Your task to perform on an android device: Show the shopping cart on walmart.com. Add logitech g pro to the cart on walmart.com, then select checkout. Image 0: 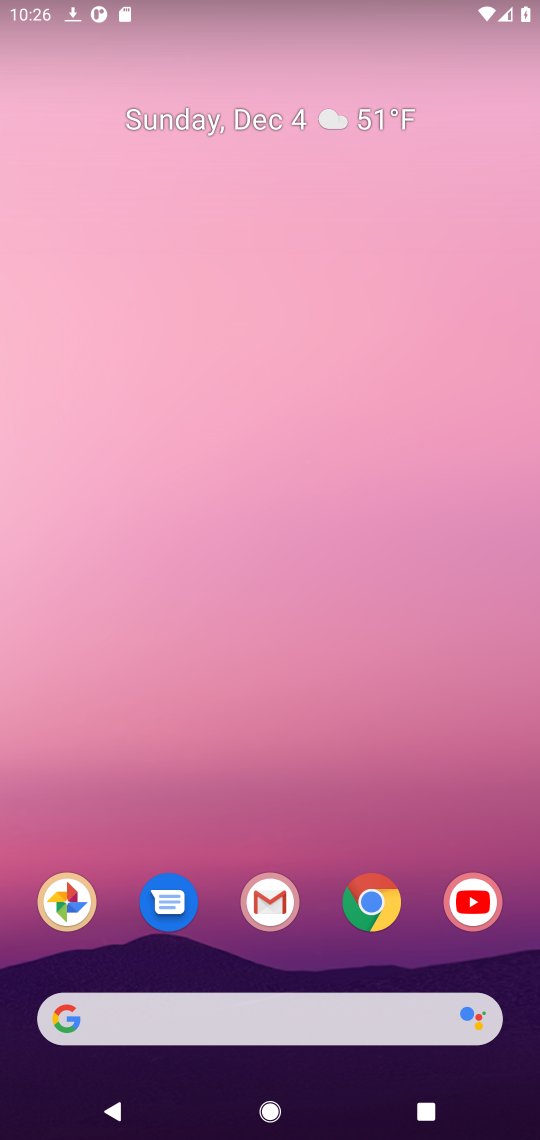
Step 0: click (388, 913)
Your task to perform on an android device: Show the shopping cart on walmart.com. Add logitech g pro to the cart on walmart.com, then select checkout. Image 1: 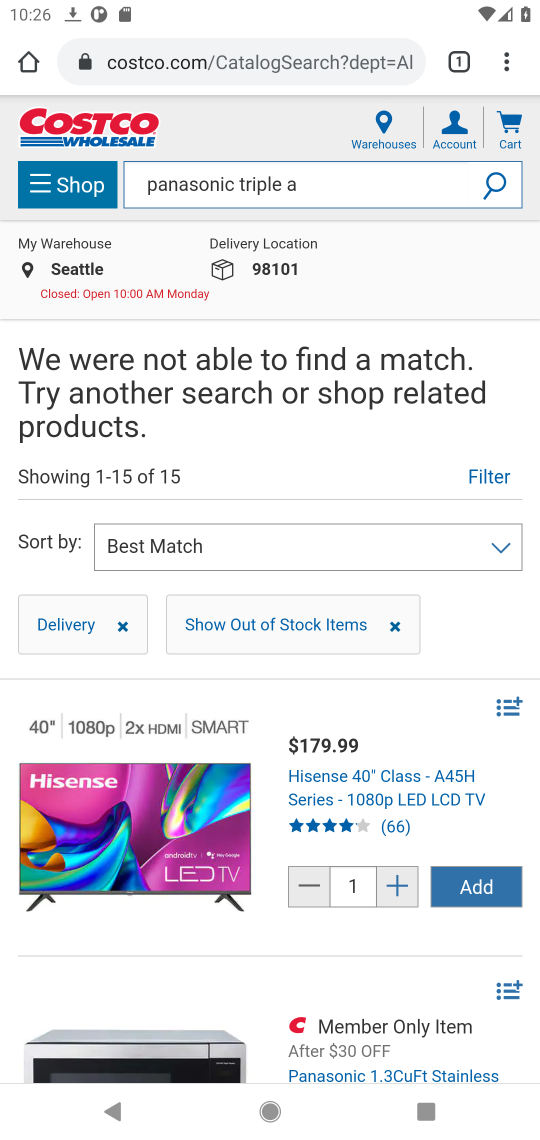
Step 1: click (256, 75)
Your task to perform on an android device: Show the shopping cart on walmart.com. Add logitech g pro to the cart on walmart.com, then select checkout. Image 2: 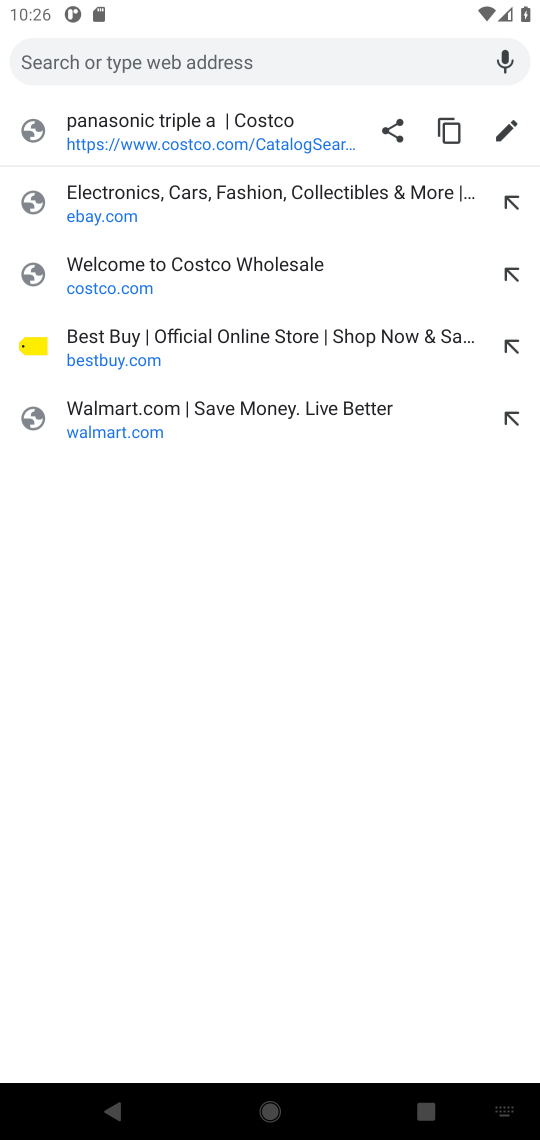
Step 2: click (255, 414)
Your task to perform on an android device: Show the shopping cart on walmart.com. Add logitech g pro to the cart on walmart.com, then select checkout. Image 3: 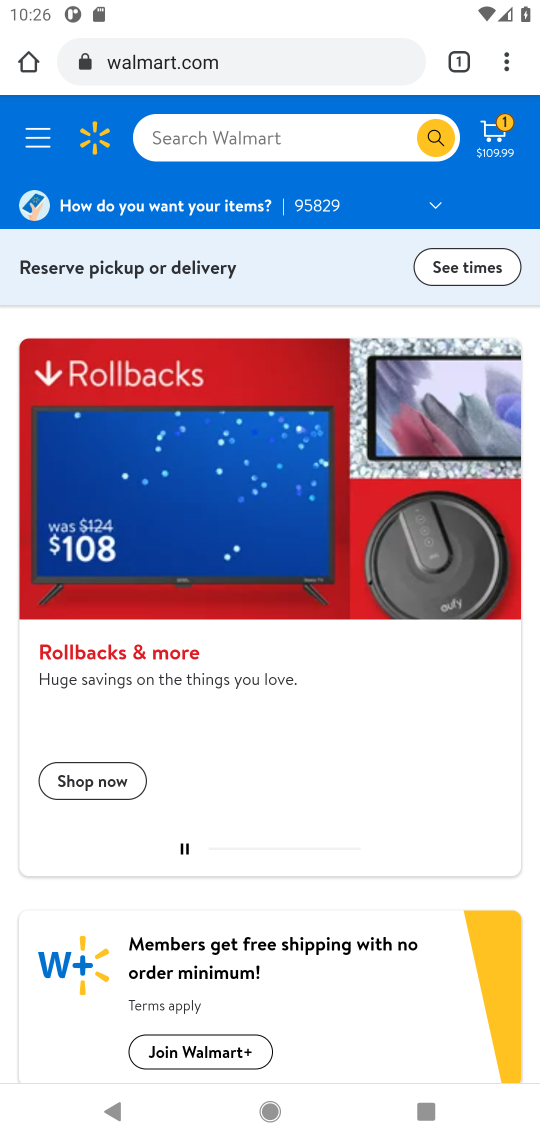
Step 3: click (514, 145)
Your task to perform on an android device: Show the shopping cart on walmart.com. Add logitech g pro to the cart on walmart.com, then select checkout. Image 4: 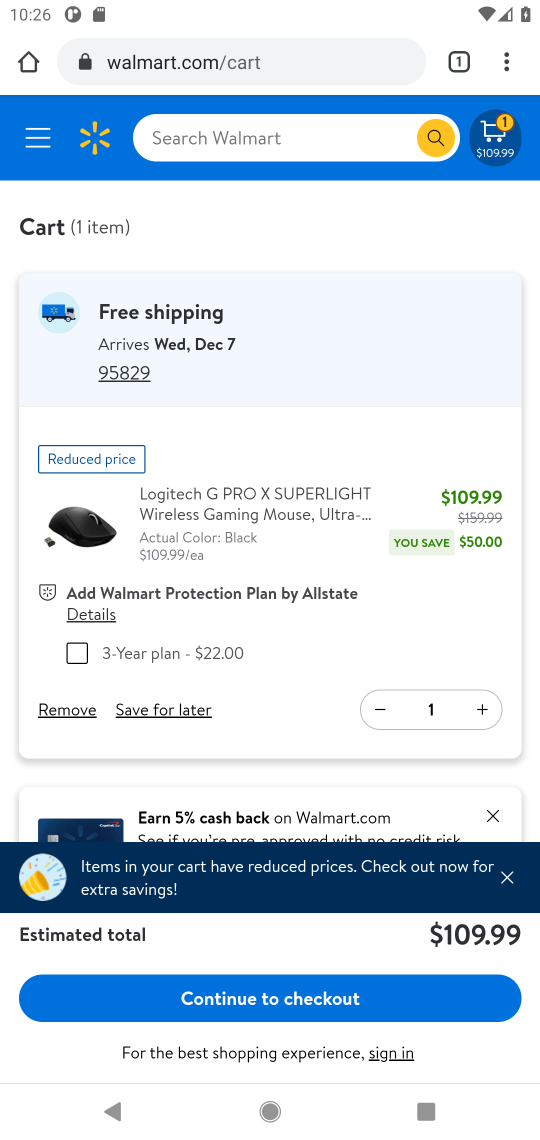
Step 4: click (182, 998)
Your task to perform on an android device: Show the shopping cart on walmart.com. Add logitech g pro to the cart on walmart.com, then select checkout. Image 5: 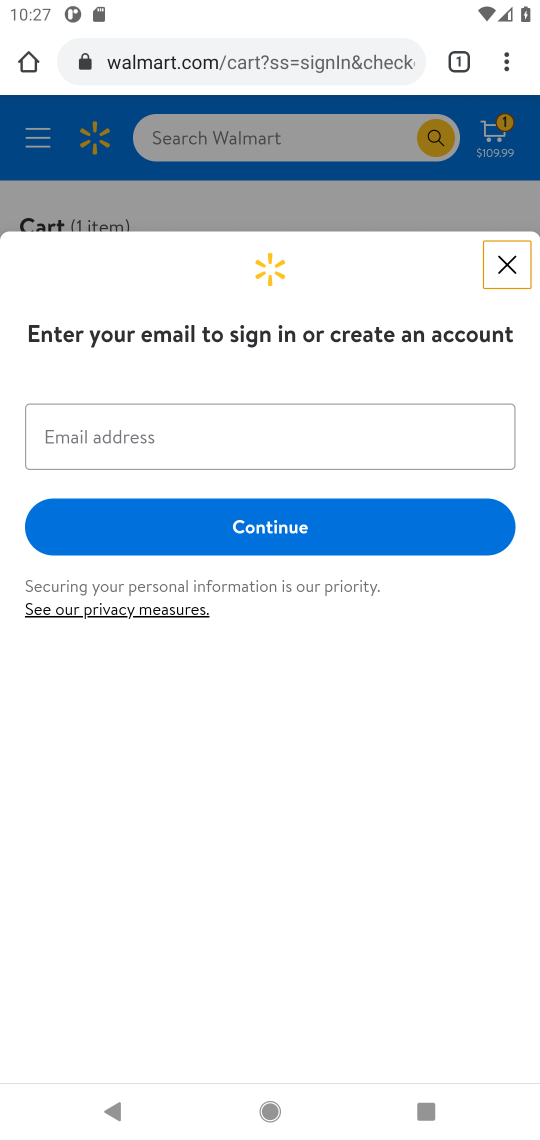
Step 5: task complete